Your task to perform on an android device: What's the latest video from Game Informer? Image 0: 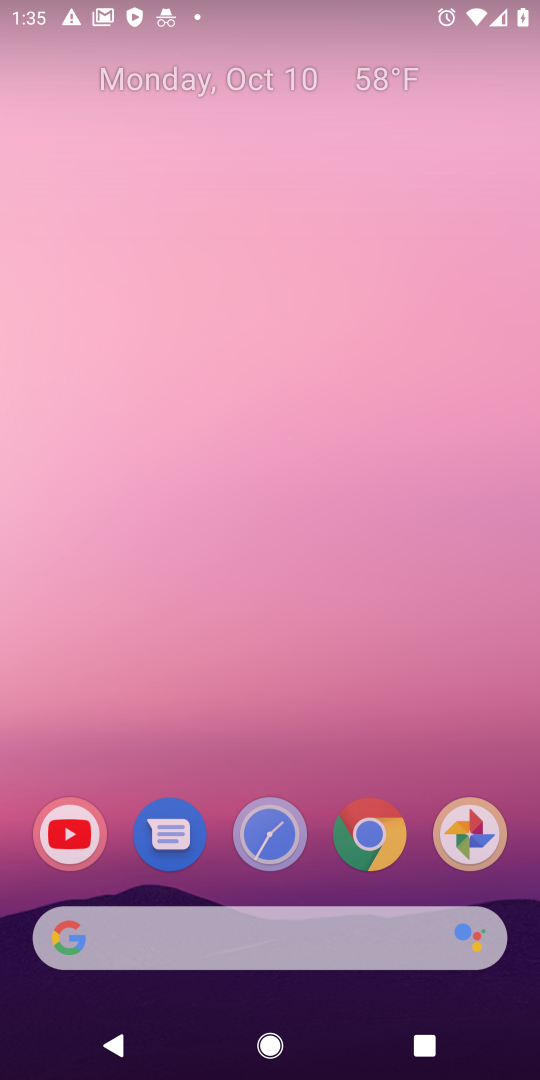
Step 0: click (358, 882)
Your task to perform on an android device: What's the latest video from Game Informer? Image 1: 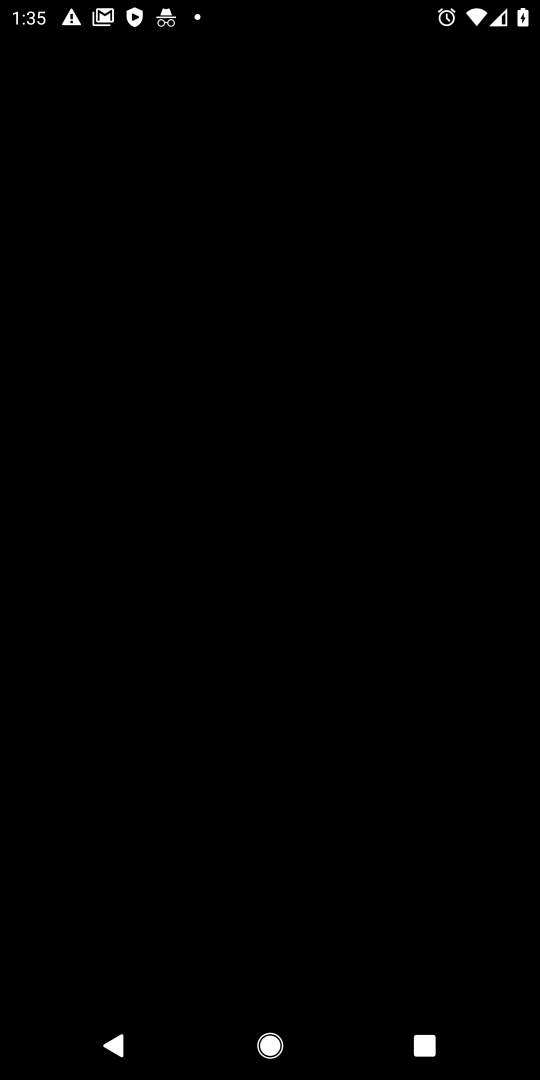
Step 1: press home button
Your task to perform on an android device: What's the latest video from Game Informer? Image 2: 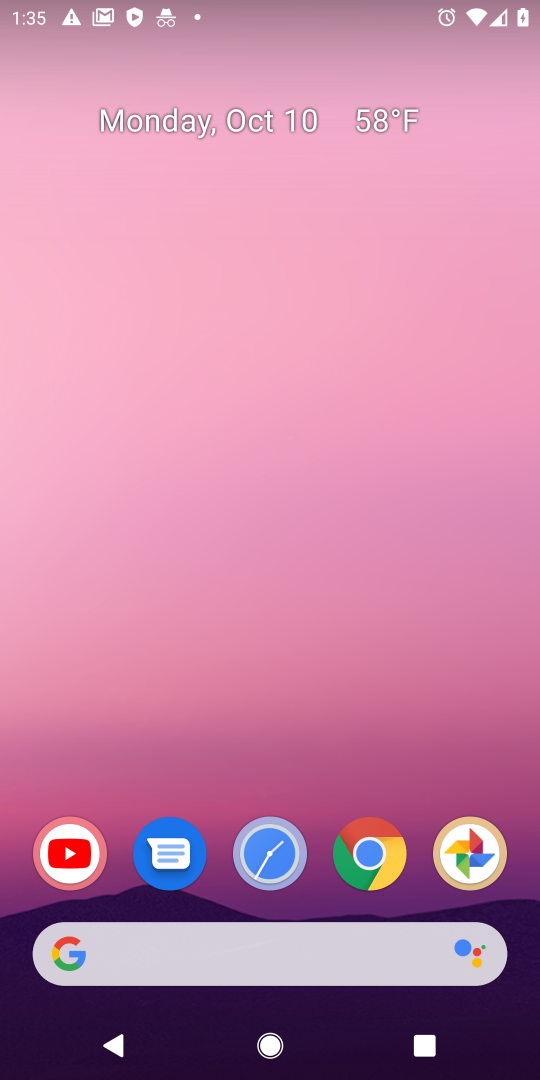
Step 2: click (60, 862)
Your task to perform on an android device: What's the latest video from Game Informer? Image 3: 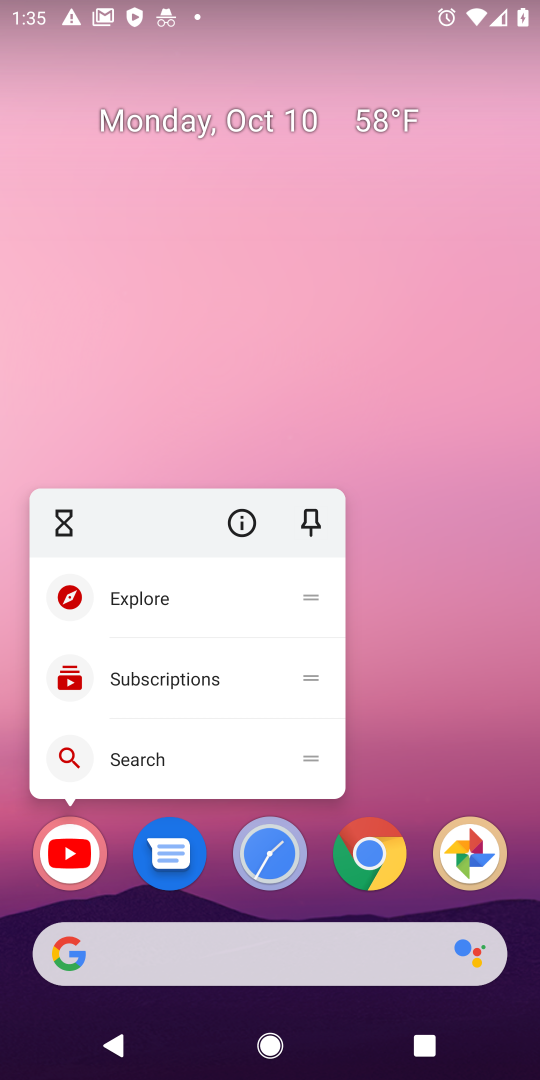
Step 3: click (70, 859)
Your task to perform on an android device: What's the latest video from Game Informer? Image 4: 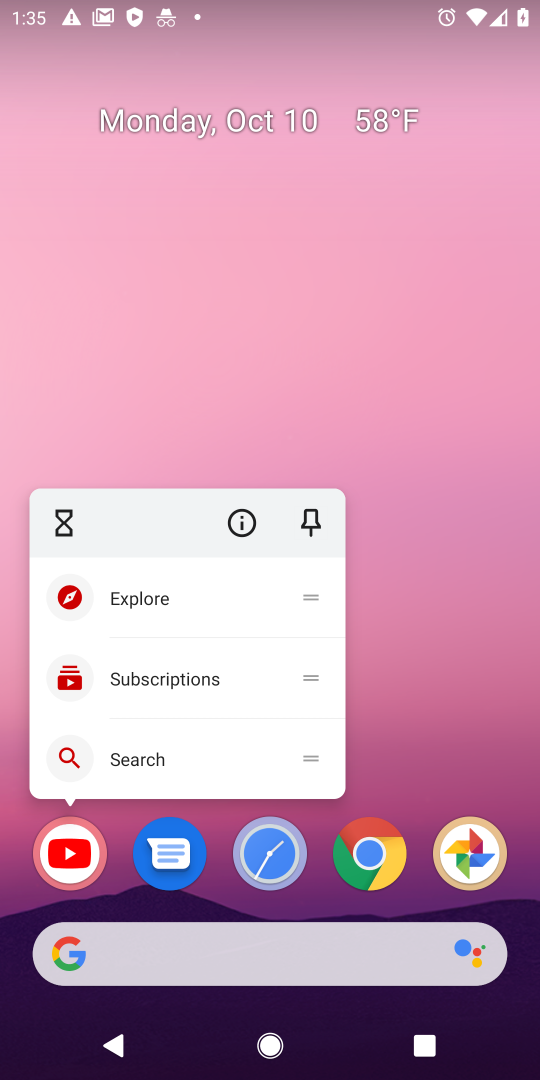
Step 4: click (70, 859)
Your task to perform on an android device: What's the latest video from Game Informer? Image 5: 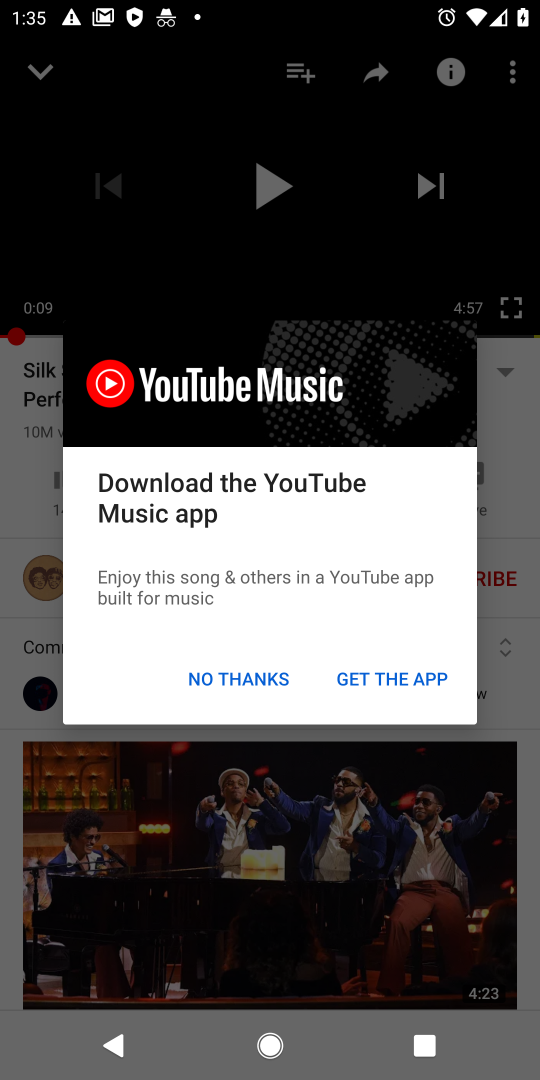
Step 5: click (206, 685)
Your task to perform on an android device: What's the latest video from Game Informer? Image 6: 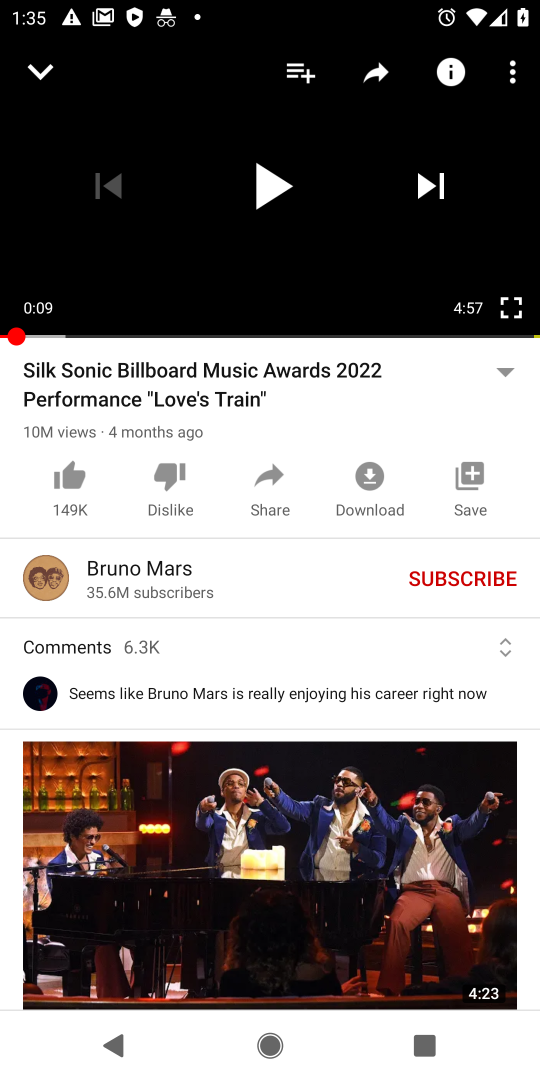
Step 6: click (63, 91)
Your task to perform on an android device: What's the latest video from Game Informer? Image 7: 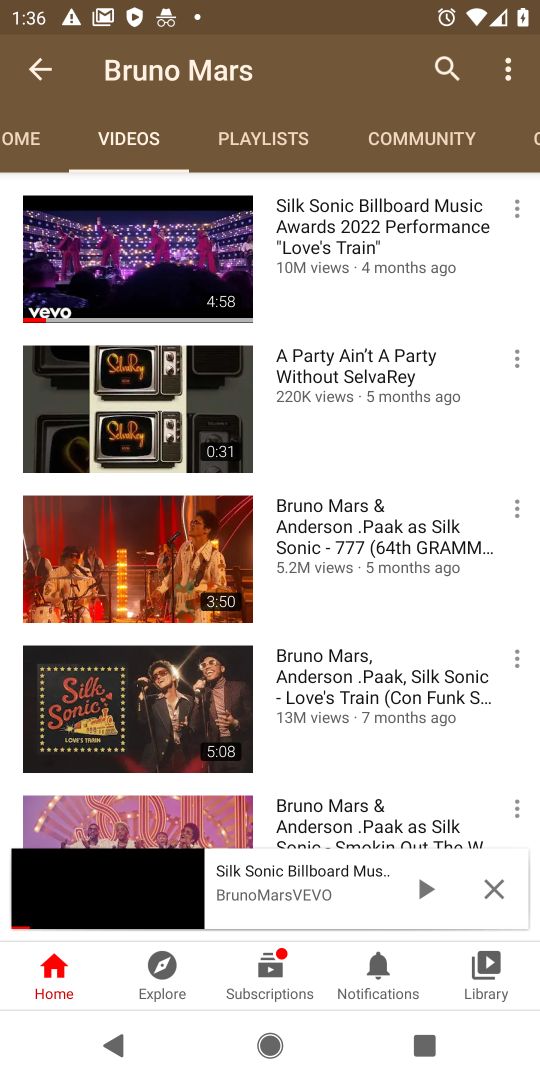
Step 7: click (462, 65)
Your task to perform on an android device: What's the latest video from Game Informer? Image 8: 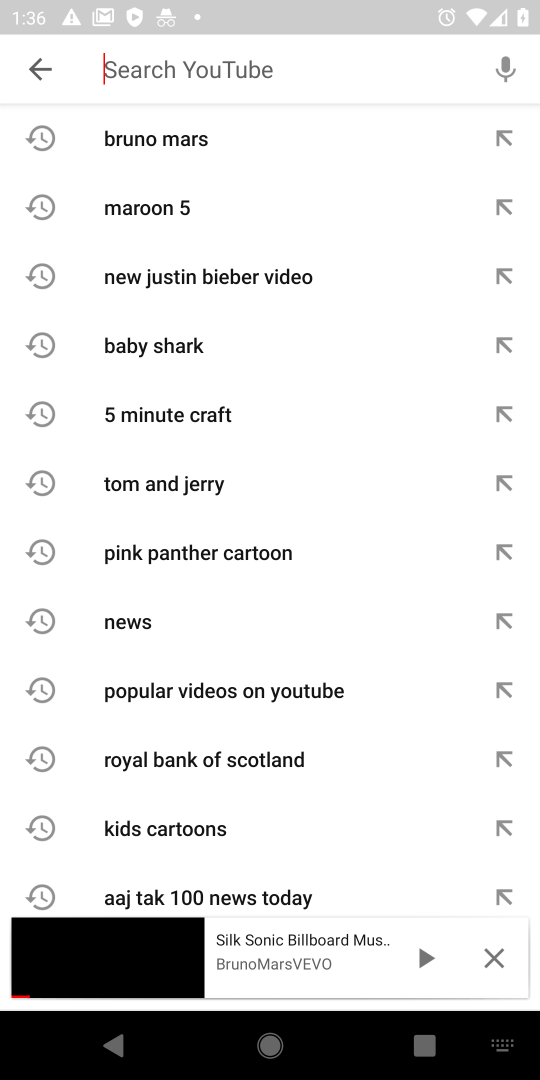
Step 8: type "game informer"
Your task to perform on an android device: What's the latest video from Game Informer? Image 9: 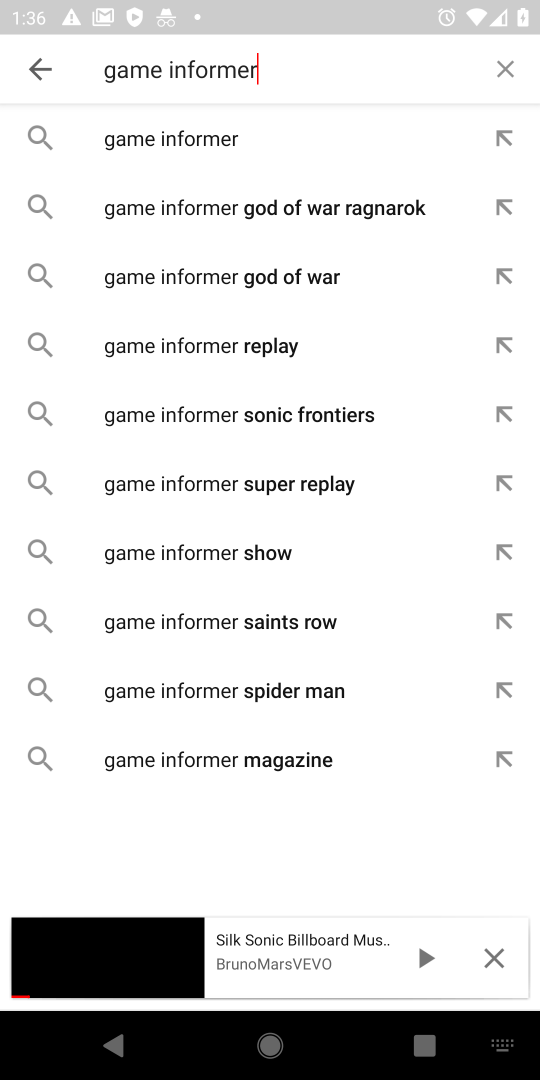
Step 9: click (243, 150)
Your task to perform on an android device: What's the latest video from Game Informer? Image 10: 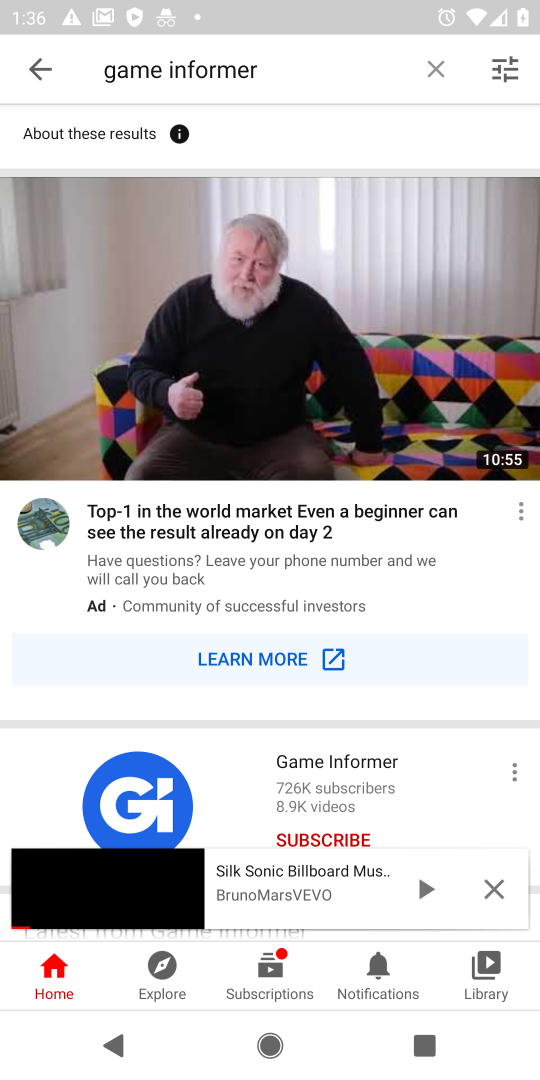
Step 10: drag from (403, 823) to (350, 433)
Your task to perform on an android device: What's the latest video from Game Informer? Image 11: 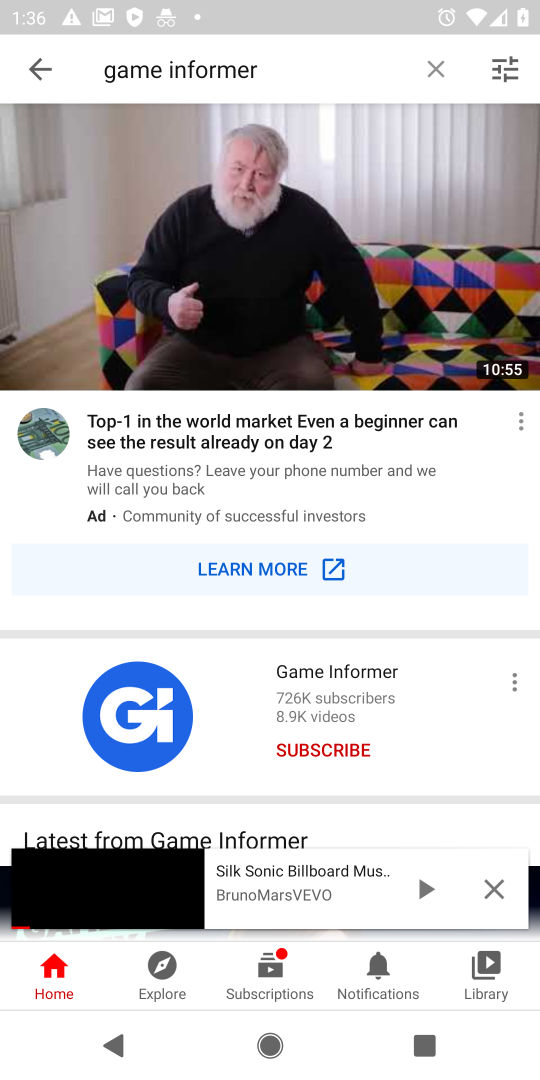
Step 11: click (146, 706)
Your task to perform on an android device: What's the latest video from Game Informer? Image 12: 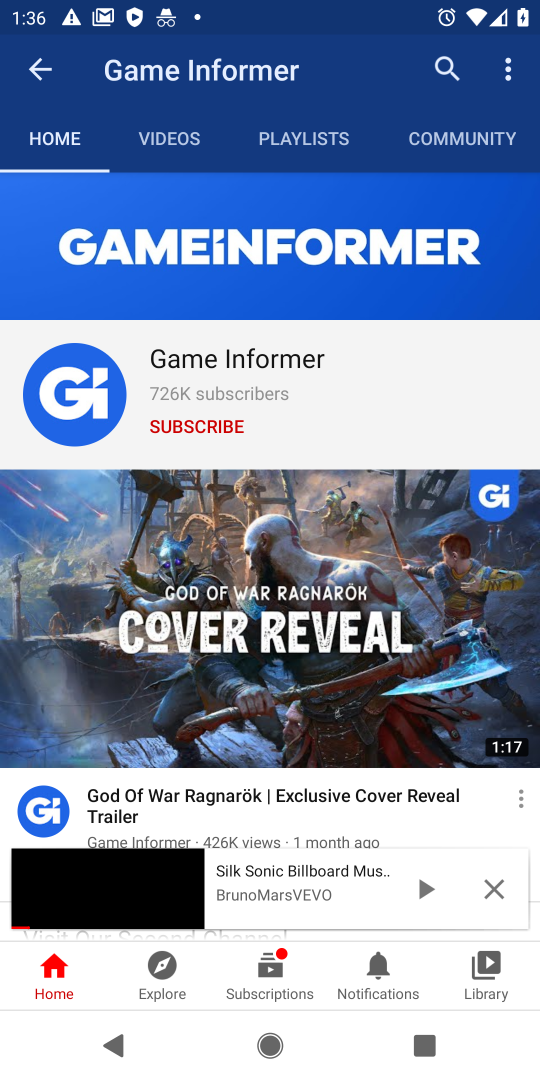
Step 12: click (176, 139)
Your task to perform on an android device: What's the latest video from Game Informer? Image 13: 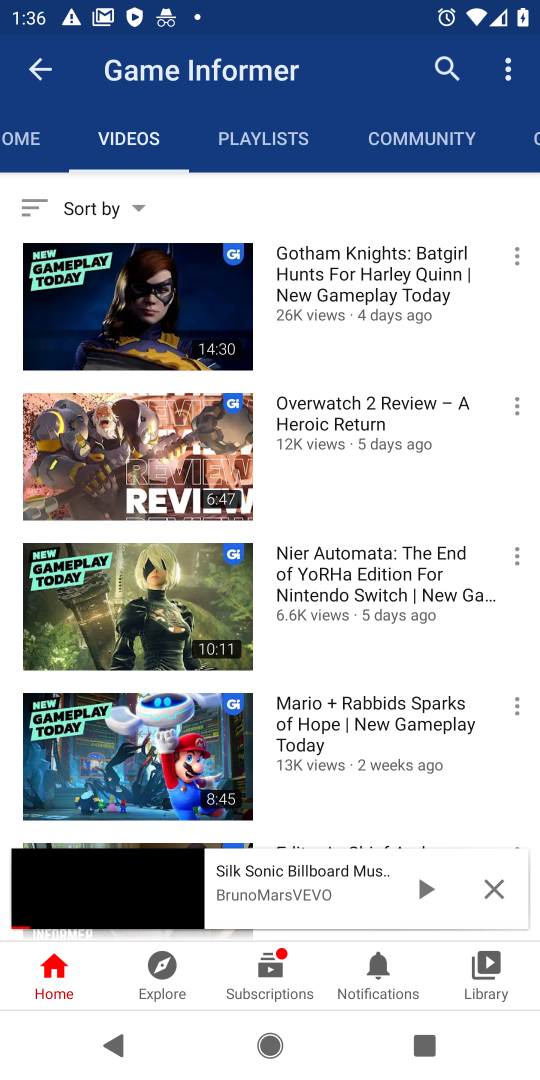
Step 13: click (182, 291)
Your task to perform on an android device: What's the latest video from Game Informer? Image 14: 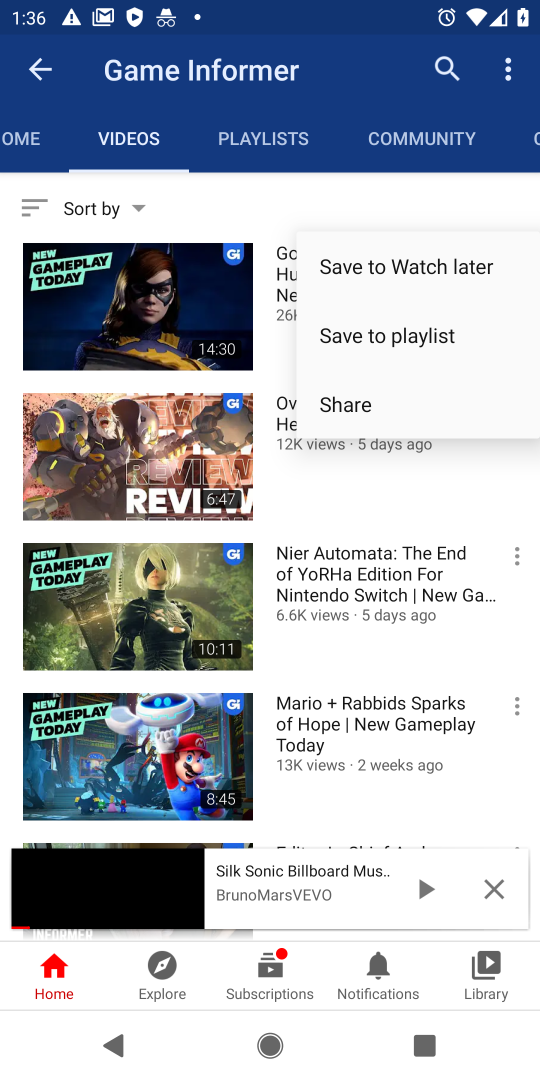
Step 14: click (130, 338)
Your task to perform on an android device: What's the latest video from Game Informer? Image 15: 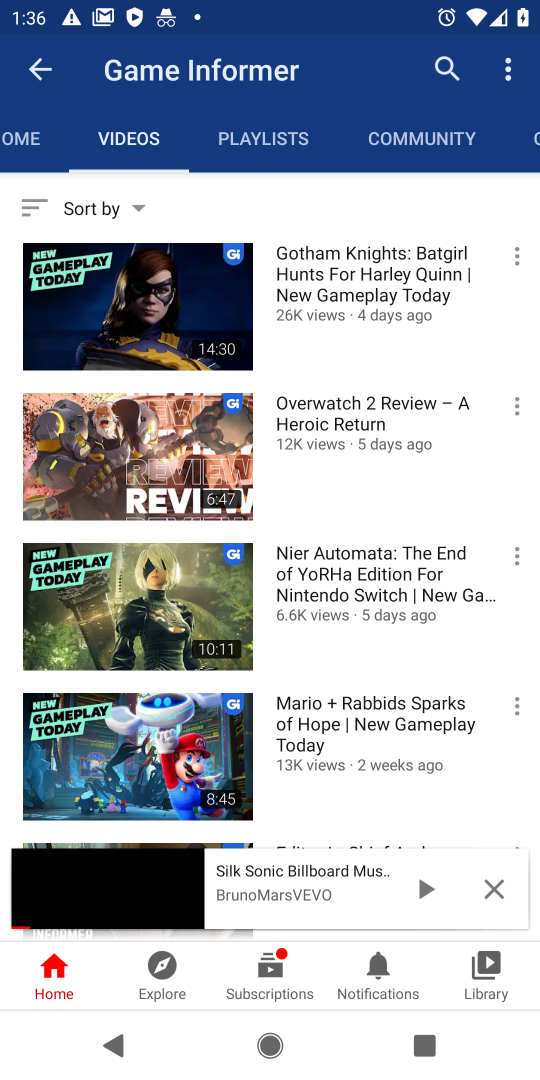
Step 15: click (158, 285)
Your task to perform on an android device: What's the latest video from Game Informer? Image 16: 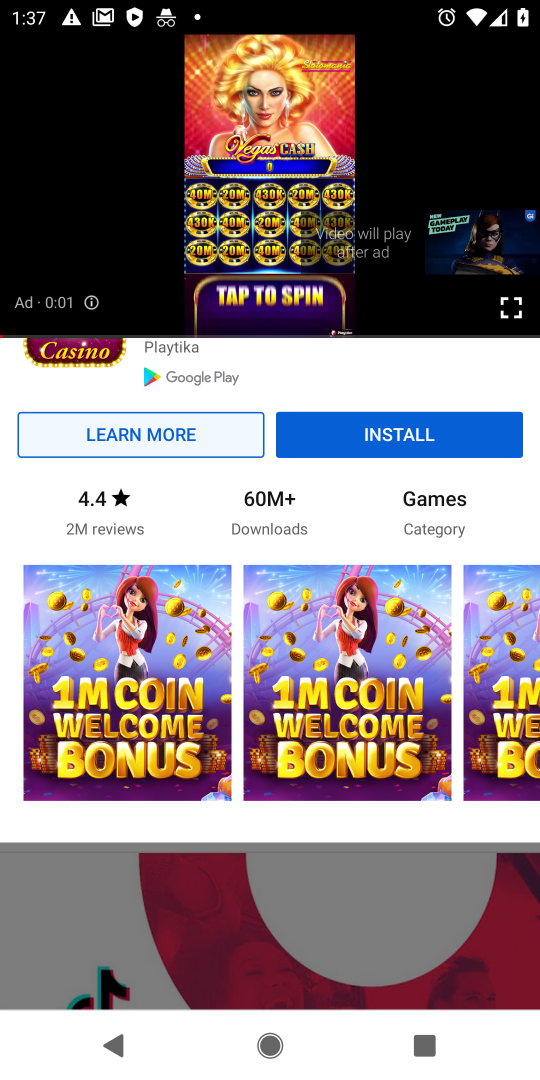
Step 16: task complete